Your task to perform on an android device: check google app version Image 0: 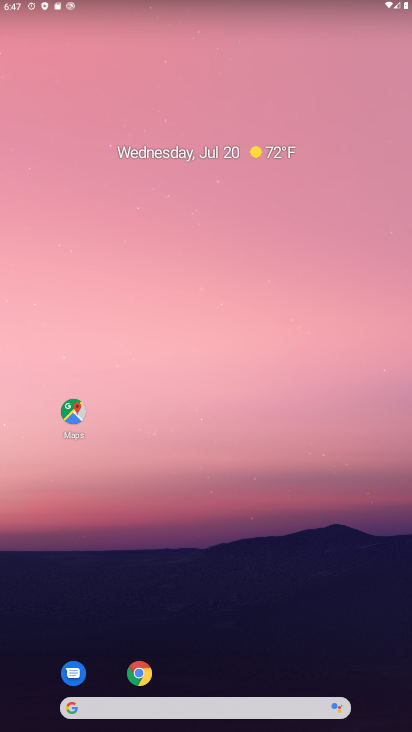
Step 0: drag from (354, 647) to (169, 18)
Your task to perform on an android device: check google app version Image 1: 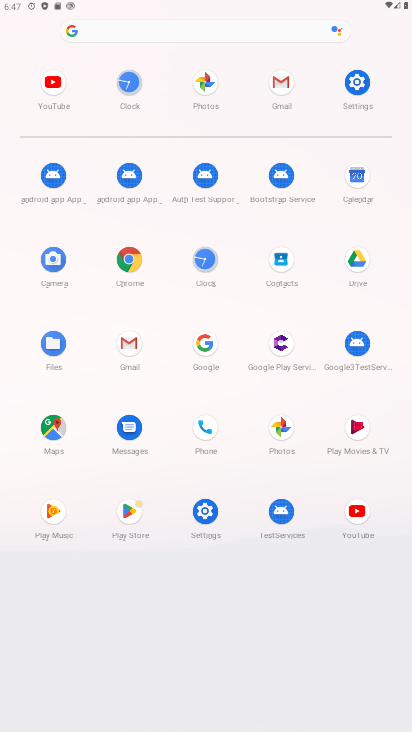
Step 1: click (202, 346)
Your task to perform on an android device: check google app version Image 2: 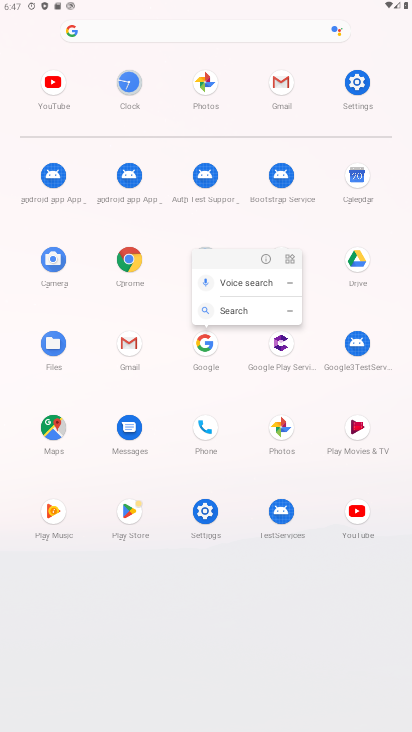
Step 2: click (268, 255)
Your task to perform on an android device: check google app version Image 3: 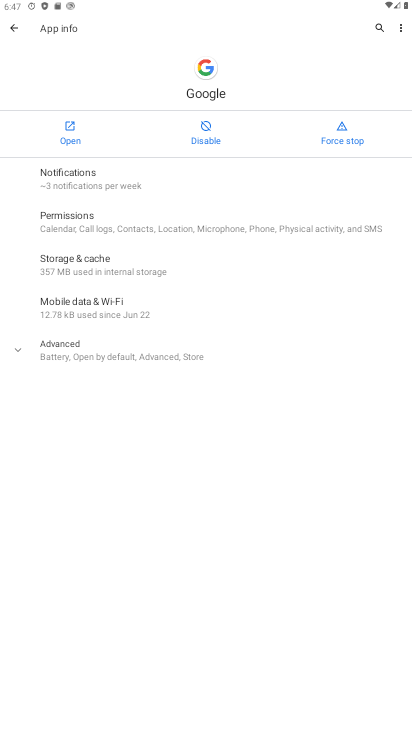
Step 3: click (110, 356)
Your task to perform on an android device: check google app version Image 4: 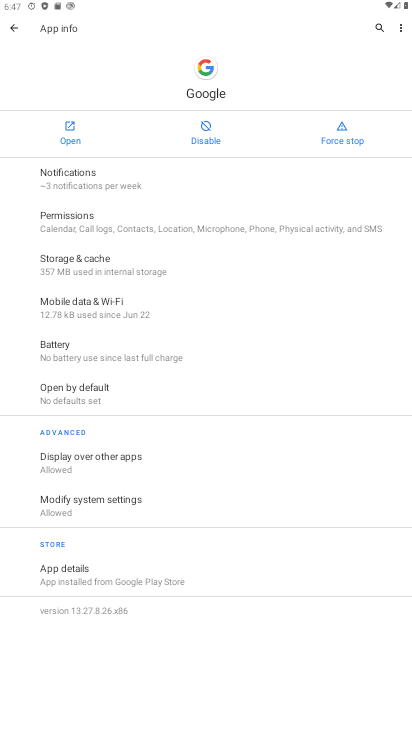
Step 4: task complete